Your task to perform on an android device: Open eBay Image 0: 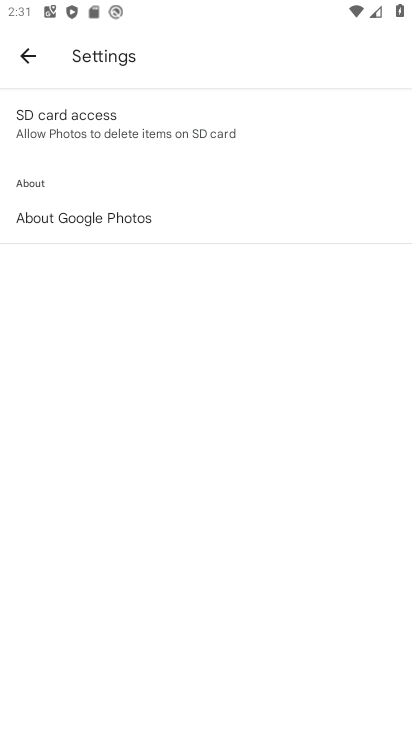
Step 0: press home button
Your task to perform on an android device: Open eBay Image 1: 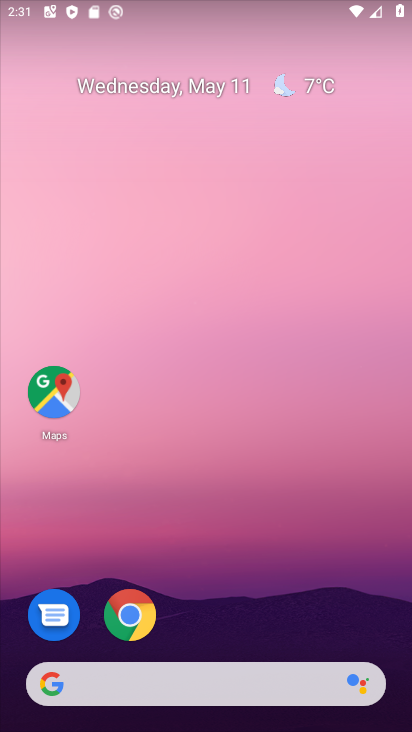
Step 1: click (135, 619)
Your task to perform on an android device: Open eBay Image 2: 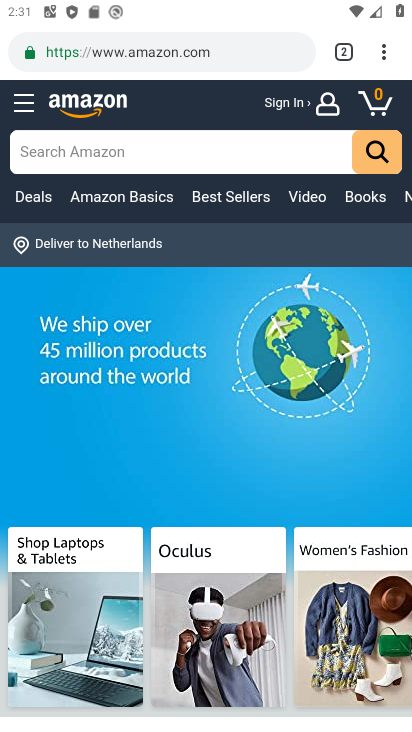
Step 2: click (187, 55)
Your task to perform on an android device: Open eBay Image 3: 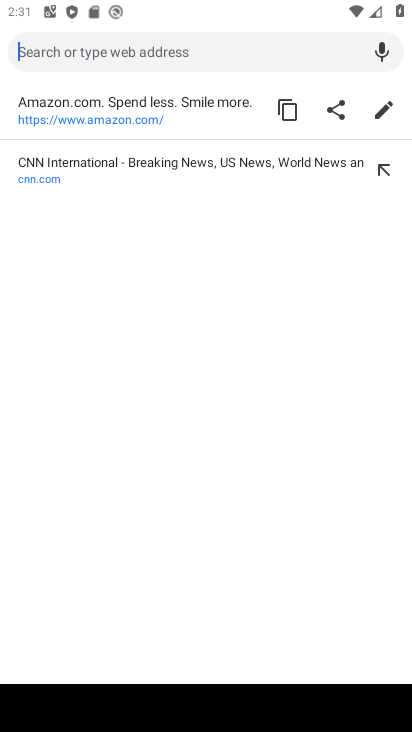
Step 3: type "ebay"
Your task to perform on an android device: Open eBay Image 4: 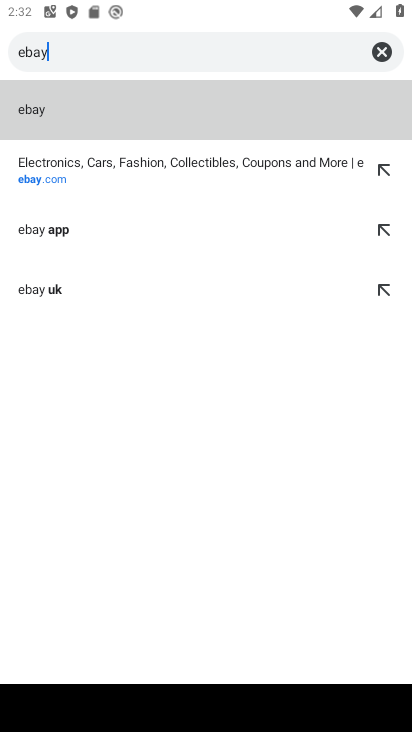
Step 4: click (39, 176)
Your task to perform on an android device: Open eBay Image 5: 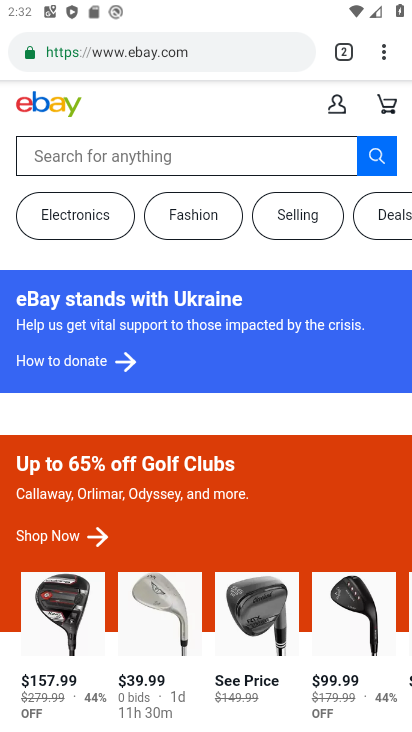
Step 5: task complete